Your task to perform on an android device: Open privacy settings Image 0: 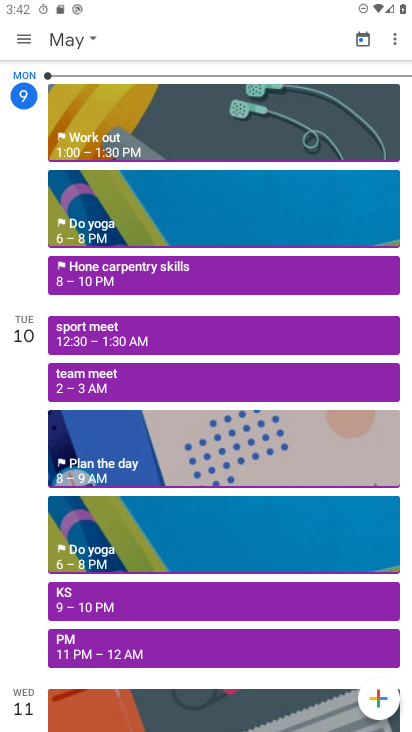
Step 0: press home button
Your task to perform on an android device: Open privacy settings Image 1: 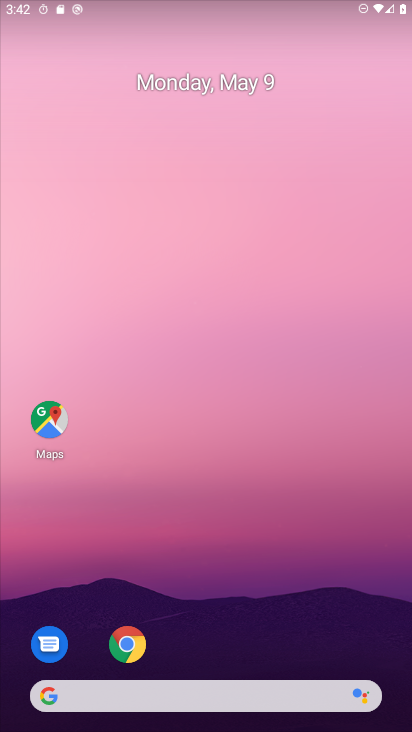
Step 1: drag from (259, 639) to (280, 170)
Your task to perform on an android device: Open privacy settings Image 2: 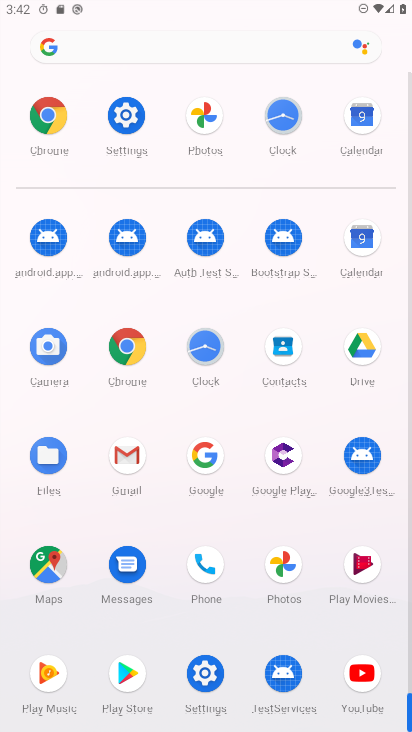
Step 2: click (123, 149)
Your task to perform on an android device: Open privacy settings Image 3: 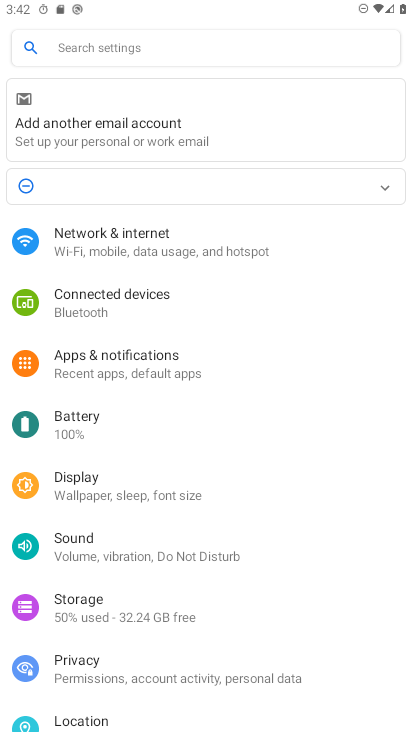
Step 3: click (89, 667)
Your task to perform on an android device: Open privacy settings Image 4: 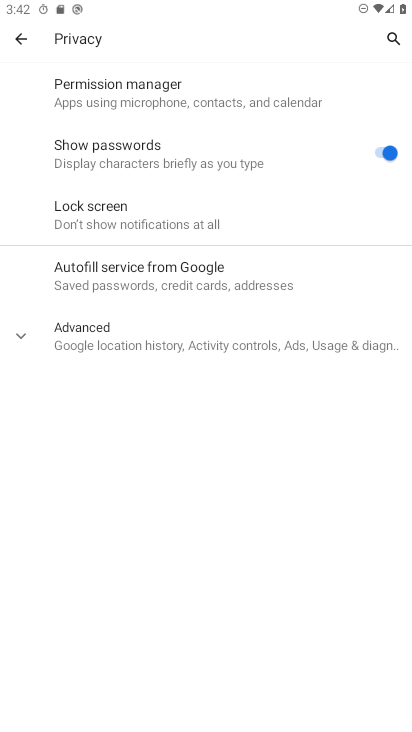
Step 4: task complete